Your task to perform on an android device: turn off translation in the chrome app Image 0: 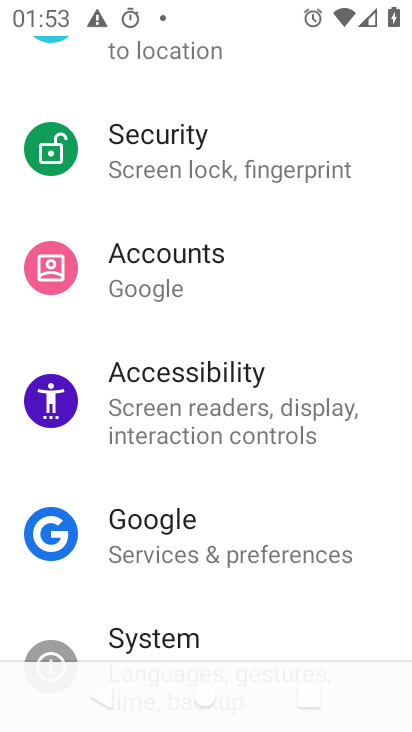
Step 0: press back button
Your task to perform on an android device: turn off translation in the chrome app Image 1: 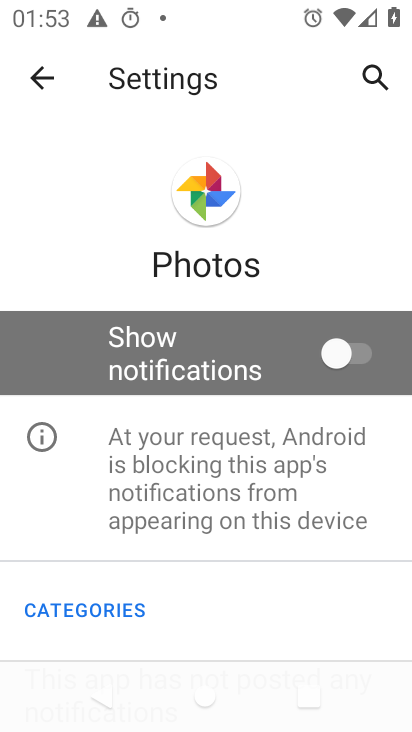
Step 1: press back button
Your task to perform on an android device: turn off translation in the chrome app Image 2: 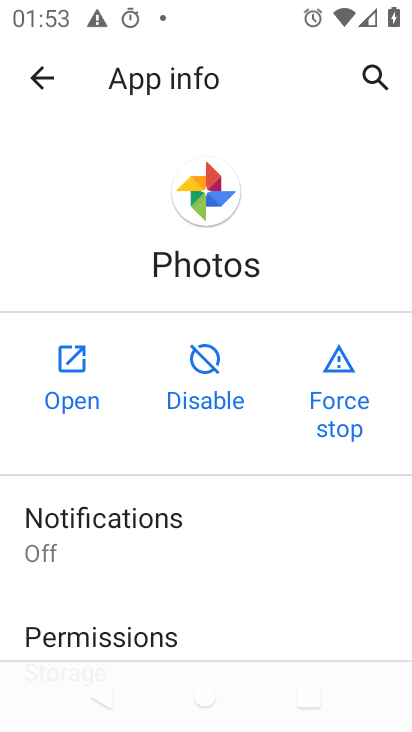
Step 2: press back button
Your task to perform on an android device: turn off translation in the chrome app Image 3: 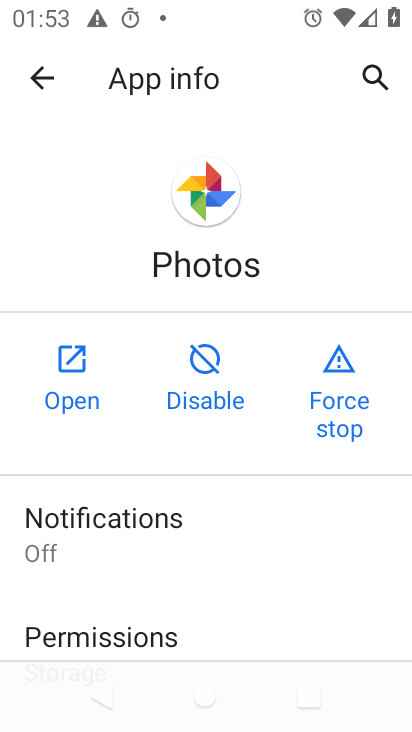
Step 3: press back button
Your task to perform on an android device: turn off translation in the chrome app Image 4: 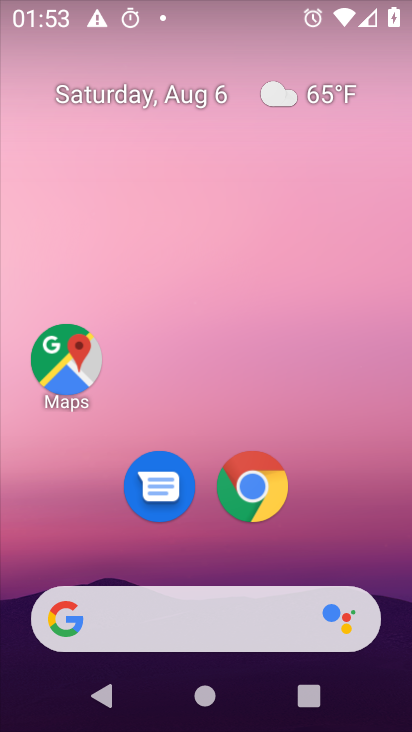
Step 4: click (248, 488)
Your task to perform on an android device: turn off translation in the chrome app Image 5: 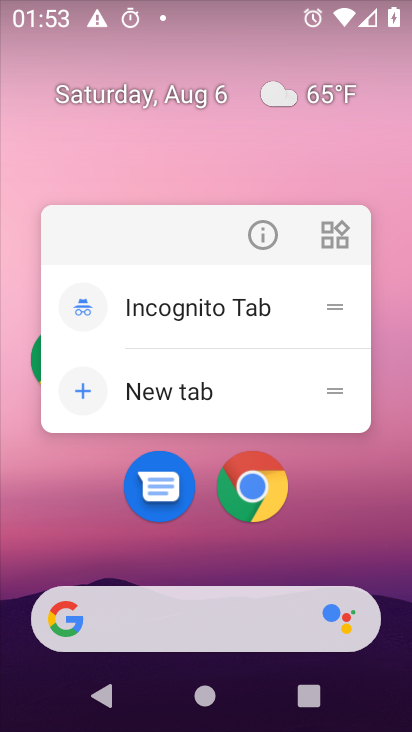
Step 5: click (254, 486)
Your task to perform on an android device: turn off translation in the chrome app Image 6: 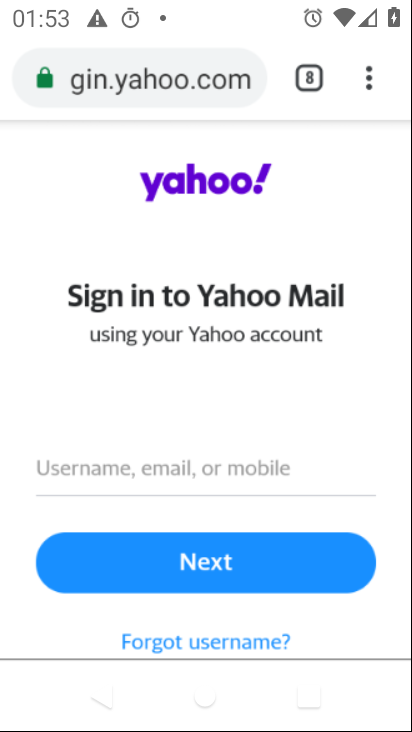
Step 6: drag from (367, 93) to (288, 333)
Your task to perform on an android device: turn off translation in the chrome app Image 7: 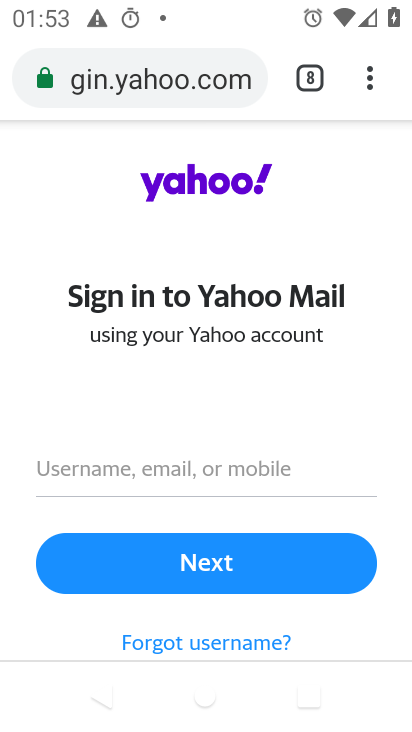
Step 7: drag from (362, 80) to (109, 530)
Your task to perform on an android device: turn off translation in the chrome app Image 8: 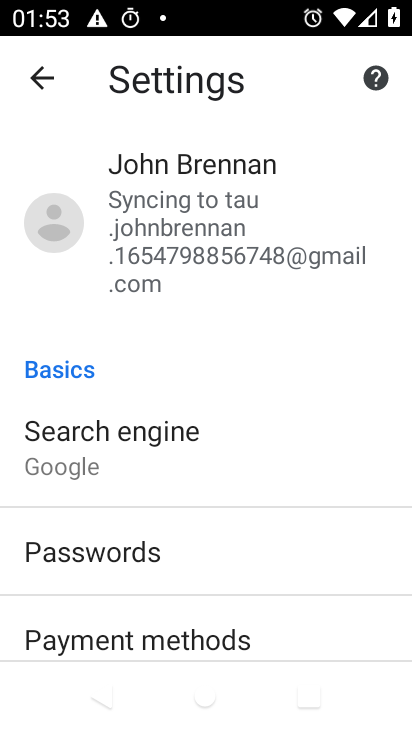
Step 8: drag from (125, 645) to (200, 24)
Your task to perform on an android device: turn off translation in the chrome app Image 9: 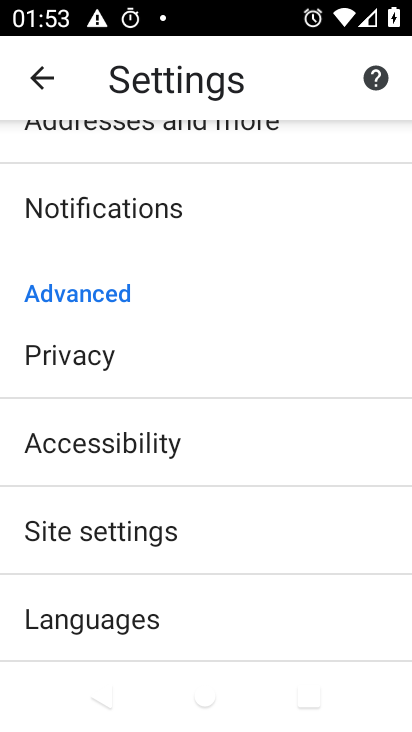
Step 9: click (148, 625)
Your task to perform on an android device: turn off translation in the chrome app Image 10: 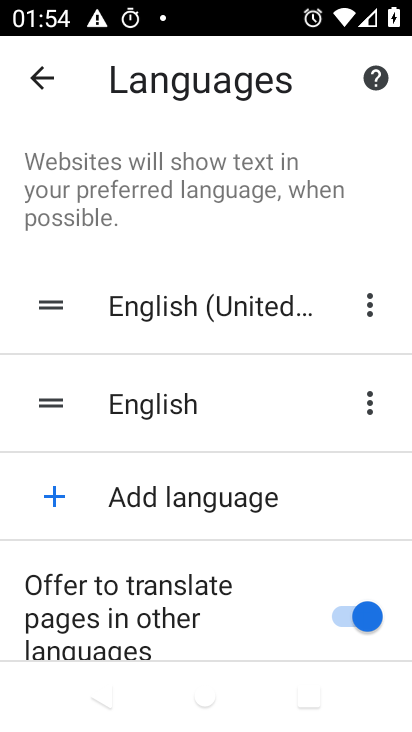
Step 10: click (364, 614)
Your task to perform on an android device: turn off translation in the chrome app Image 11: 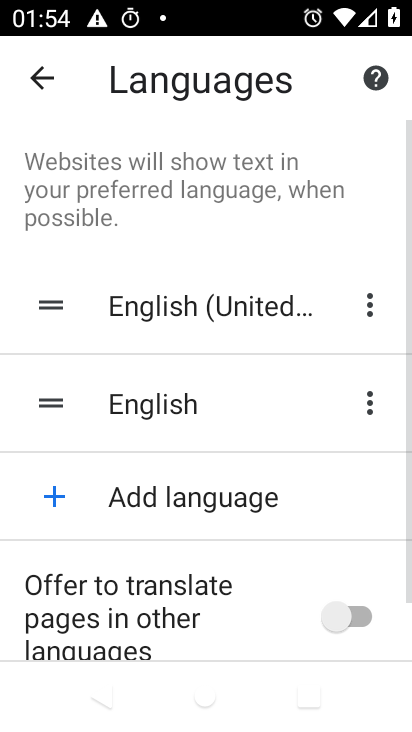
Step 11: task complete